Your task to perform on an android device: see tabs open on other devices in the chrome app Image 0: 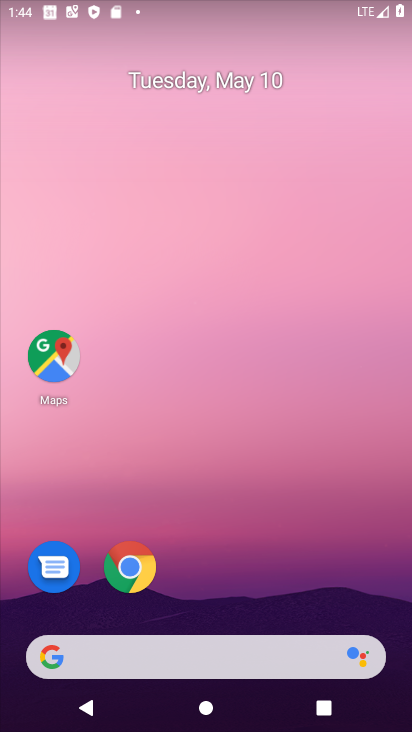
Step 0: drag from (384, 626) to (300, 51)
Your task to perform on an android device: see tabs open on other devices in the chrome app Image 1: 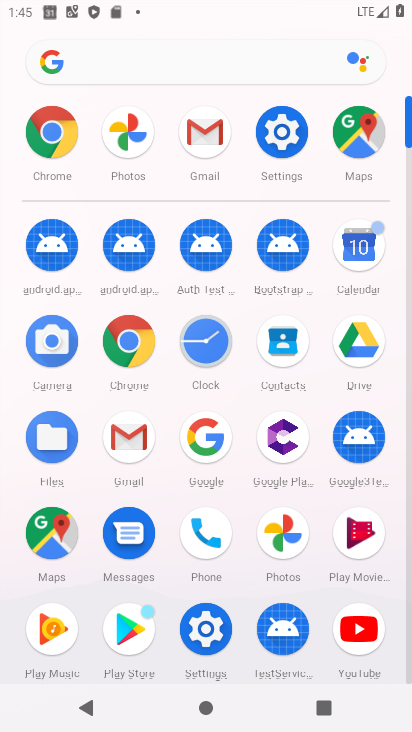
Step 1: click (127, 360)
Your task to perform on an android device: see tabs open on other devices in the chrome app Image 2: 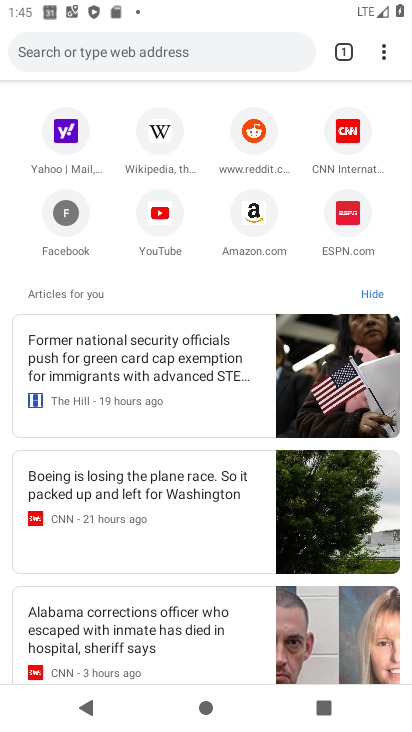
Step 2: task complete